Your task to perform on an android device: Go to calendar. Show me events next week Image 0: 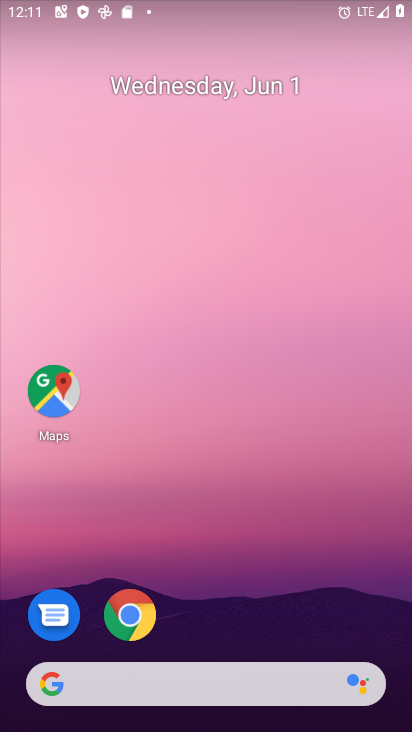
Step 0: drag from (301, 610) to (389, 2)
Your task to perform on an android device: Go to calendar. Show me events next week Image 1: 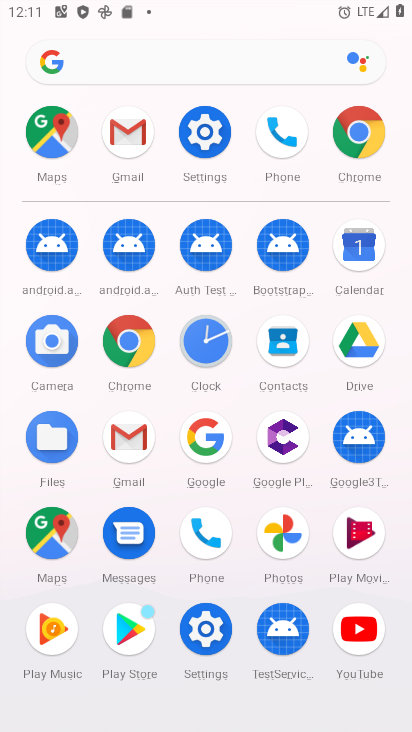
Step 1: click (358, 253)
Your task to perform on an android device: Go to calendar. Show me events next week Image 2: 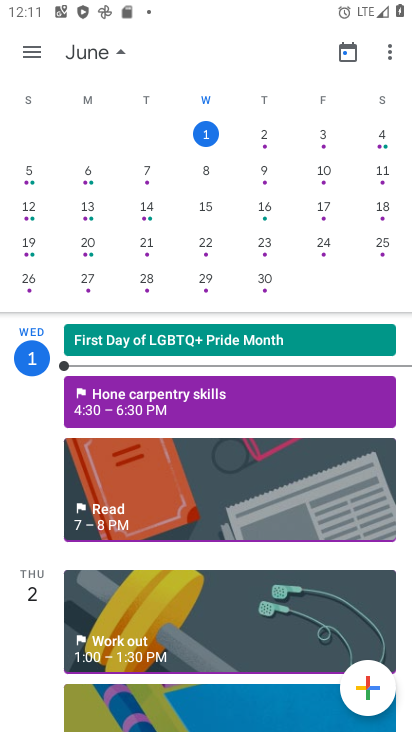
Step 2: click (204, 167)
Your task to perform on an android device: Go to calendar. Show me events next week Image 3: 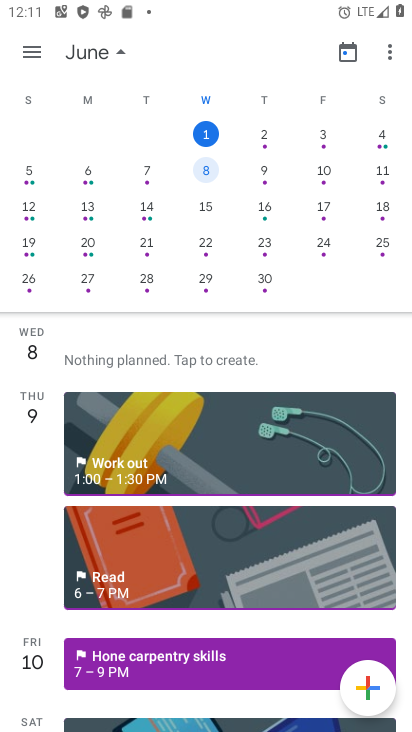
Step 3: task complete